Your task to perform on an android device: When is my next appointment? Image 0: 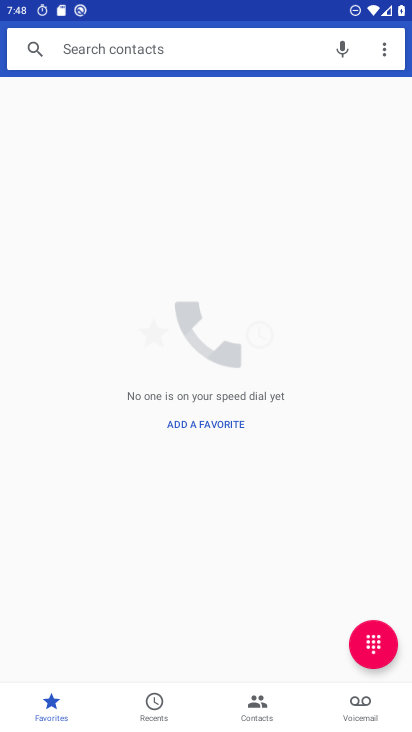
Step 0: press home button
Your task to perform on an android device: When is my next appointment? Image 1: 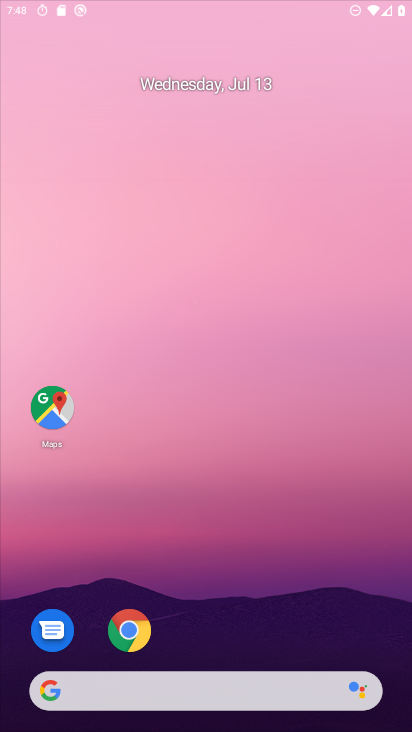
Step 1: drag from (341, 553) to (299, 7)
Your task to perform on an android device: When is my next appointment? Image 2: 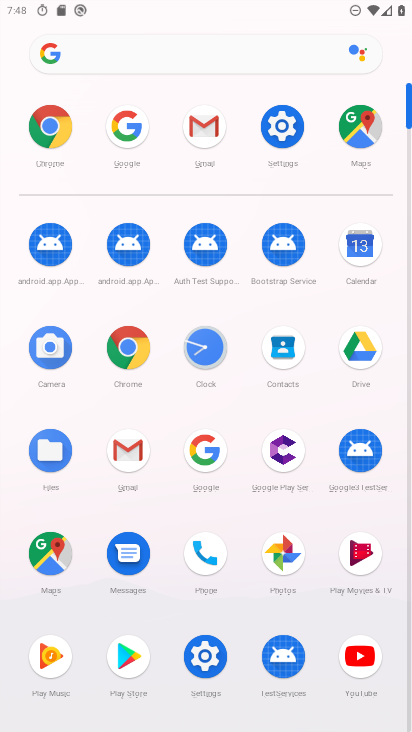
Step 2: click (365, 257)
Your task to perform on an android device: When is my next appointment? Image 3: 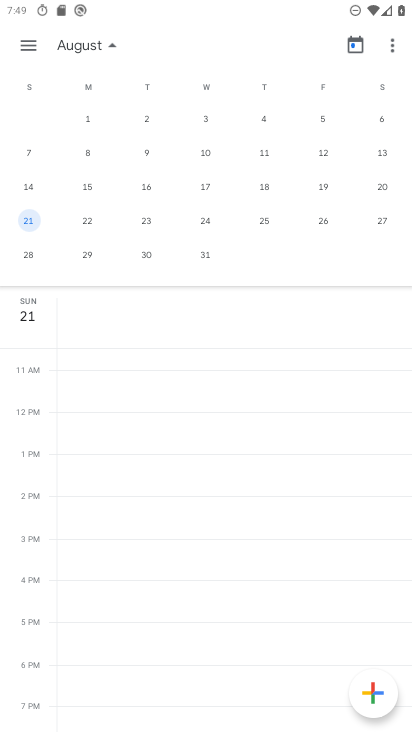
Step 3: task complete